Your task to perform on an android device: Open eBay Image 0: 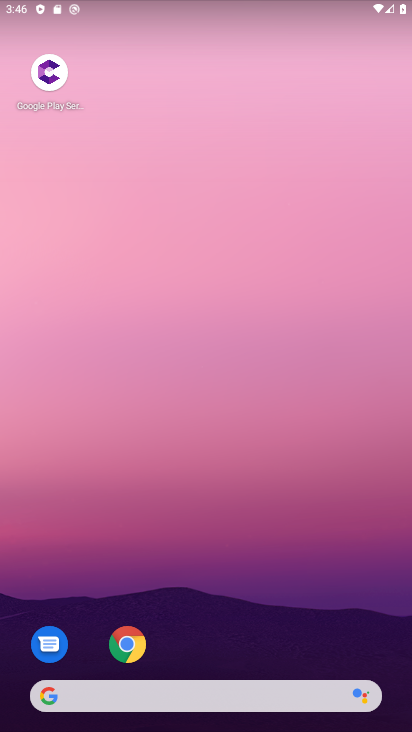
Step 0: click (135, 658)
Your task to perform on an android device: Open eBay Image 1: 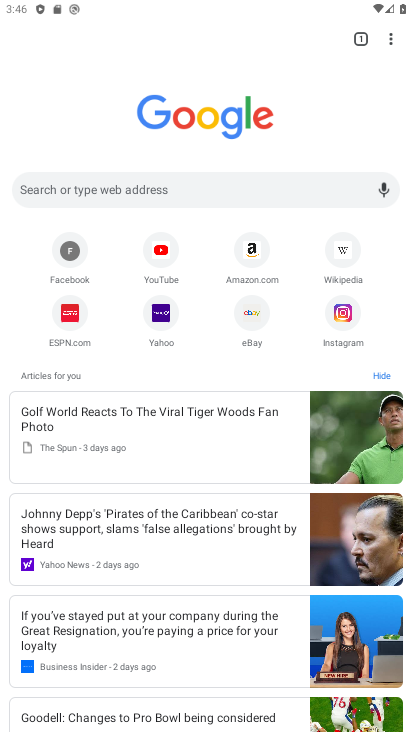
Step 1: click (271, 327)
Your task to perform on an android device: Open eBay Image 2: 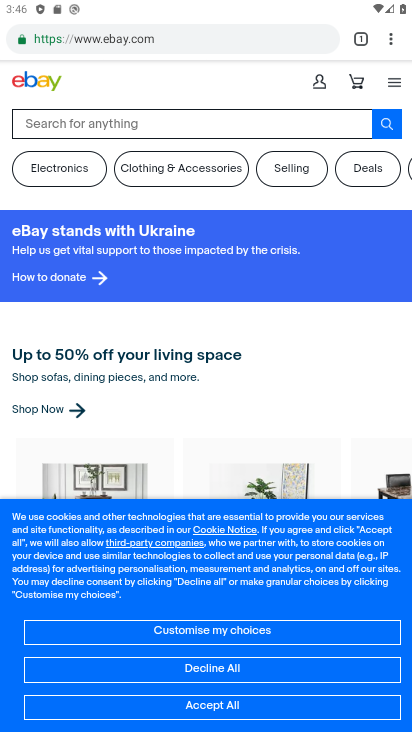
Step 2: click (201, 705)
Your task to perform on an android device: Open eBay Image 3: 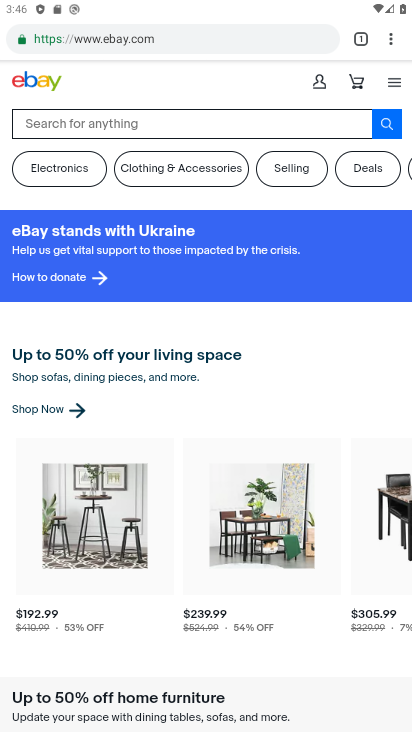
Step 3: task complete